Your task to perform on an android device: Open the calendar app, open the side menu, and click the "Day" option Image 0: 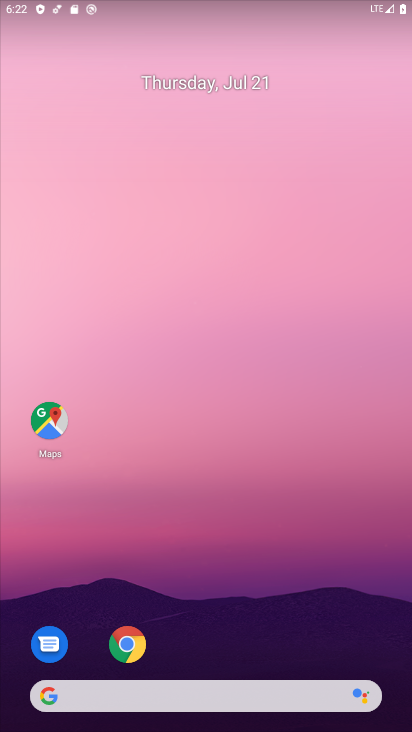
Step 0: drag from (243, 670) to (161, 177)
Your task to perform on an android device: Open the calendar app, open the side menu, and click the "Day" option Image 1: 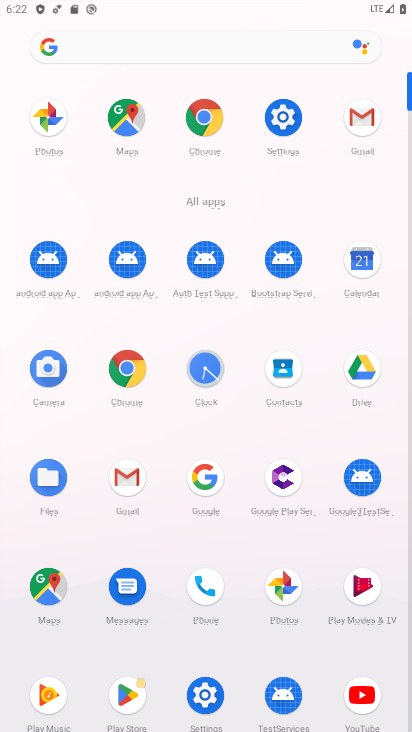
Step 1: click (358, 262)
Your task to perform on an android device: Open the calendar app, open the side menu, and click the "Day" option Image 2: 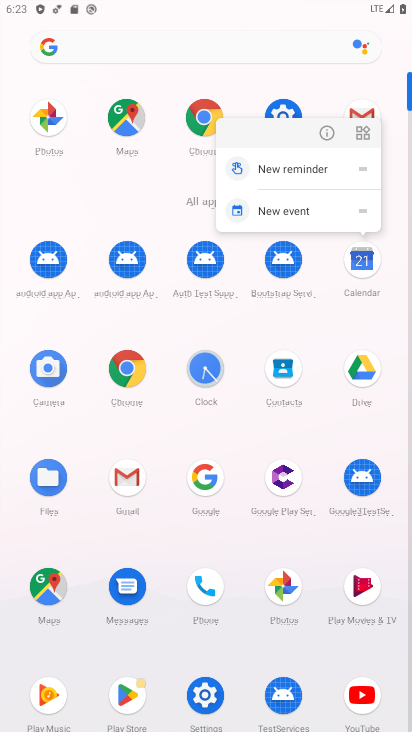
Step 2: click (355, 260)
Your task to perform on an android device: Open the calendar app, open the side menu, and click the "Day" option Image 3: 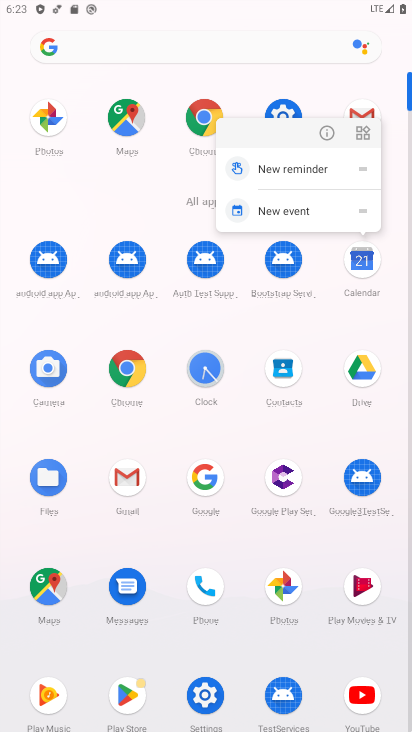
Step 3: click (355, 260)
Your task to perform on an android device: Open the calendar app, open the side menu, and click the "Day" option Image 4: 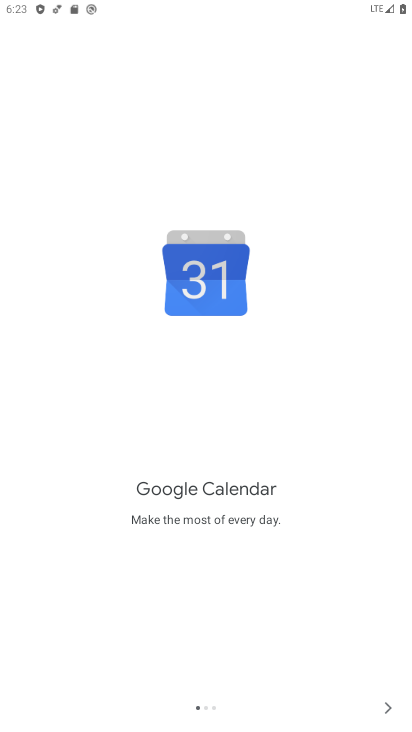
Step 4: click (388, 708)
Your task to perform on an android device: Open the calendar app, open the side menu, and click the "Day" option Image 5: 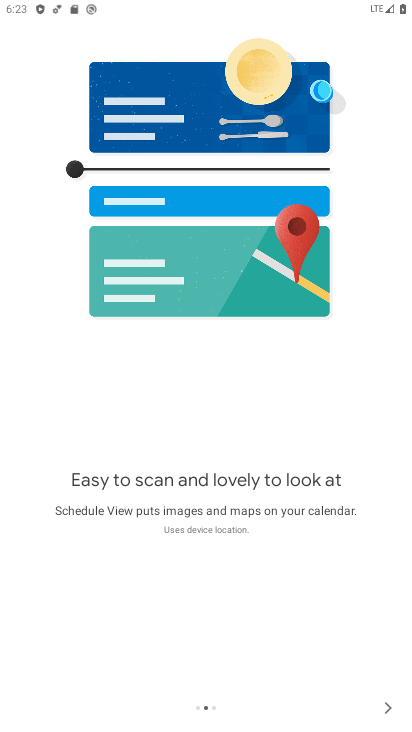
Step 5: click (387, 708)
Your task to perform on an android device: Open the calendar app, open the side menu, and click the "Day" option Image 6: 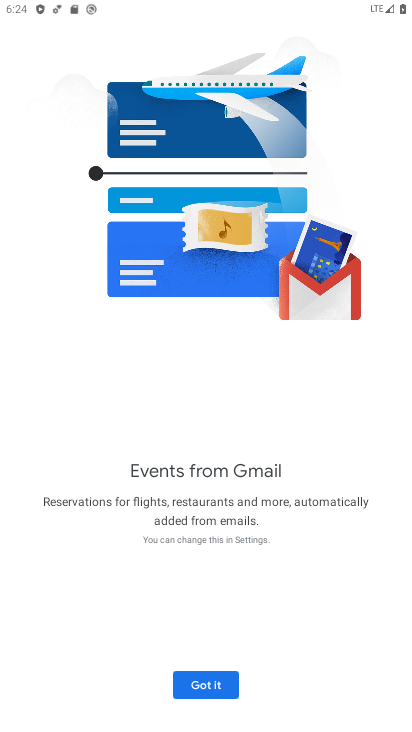
Step 6: click (219, 682)
Your task to perform on an android device: Open the calendar app, open the side menu, and click the "Day" option Image 7: 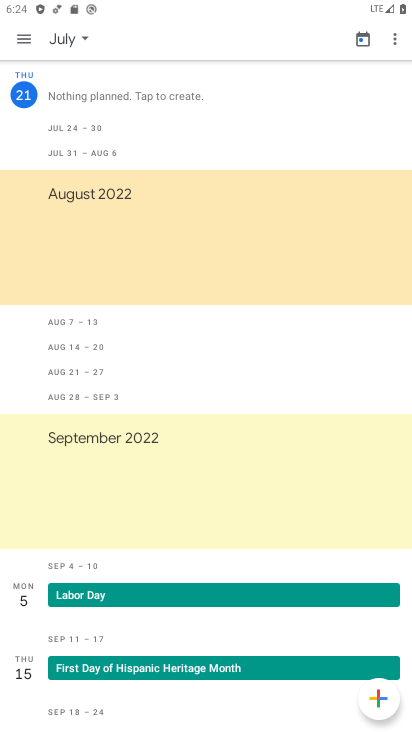
Step 7: click (22, 35)
Your task to perform on an android device: Open the calendar app, open the side menu, and click the "Day" option Image 8: 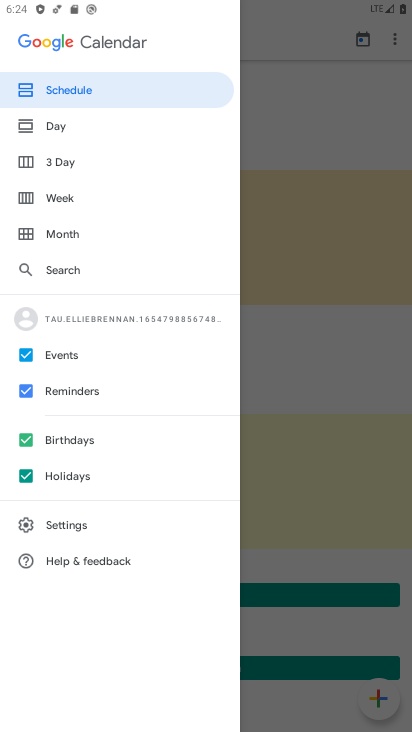
Step 8: click (68, 141)
Your task to perform on an android device: Open the calendar app, open the side menu, and click the "Day" option Image 9: 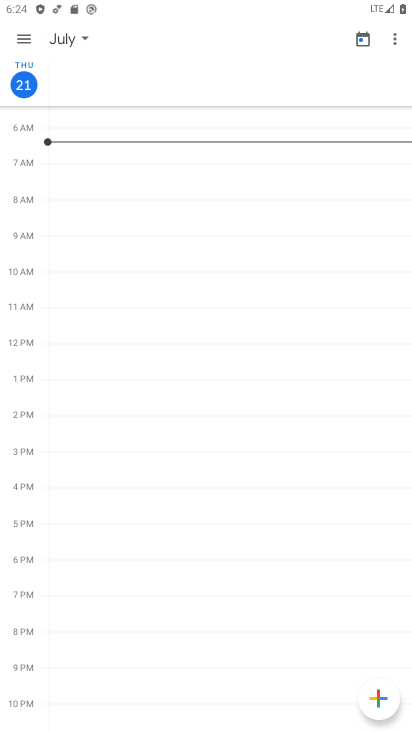
Step 9: task complete